Your task to perform on an android device: turn on data saver in the chrome app Image 0: 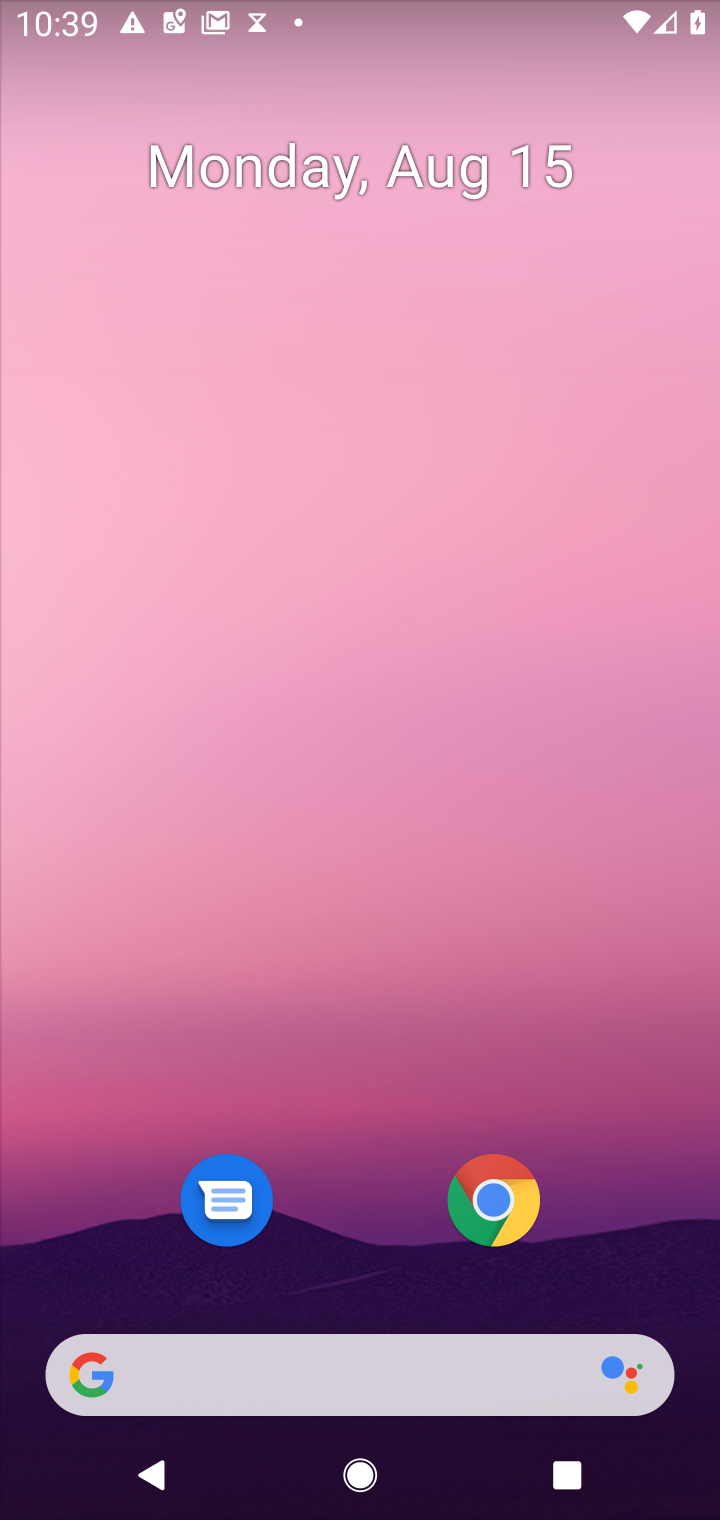
Step 0: drag from (379, 1238) to (364, 147)
Your task to perform on an android device: turn on data saver in the chrome app Image 1: 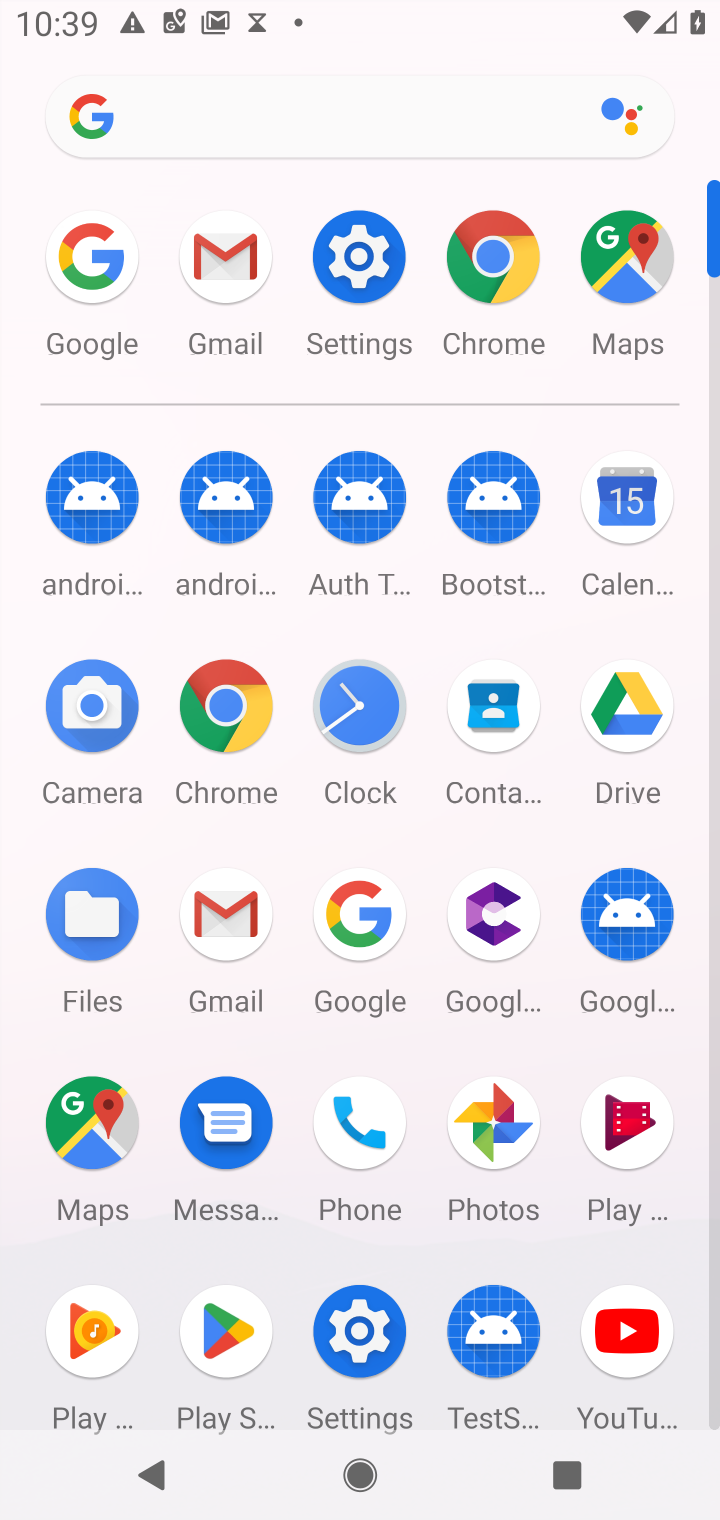
Step 1: click (486, 285)
Your task to perform on an android device: turn on data saver in the chrome app Image 2: 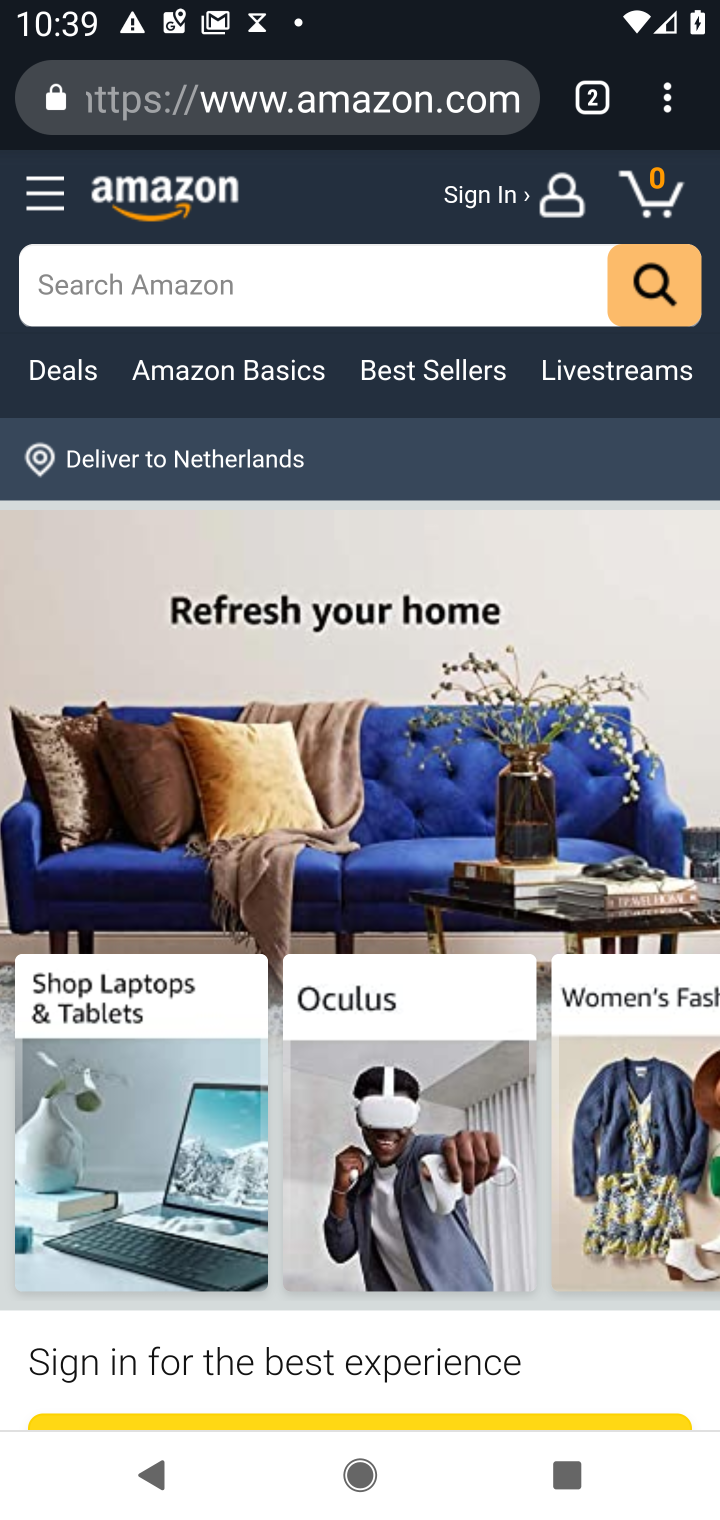
Step 2: click (657, 90)
Your task to perform on an android device: turn on data saver in the chrome app Image 3: 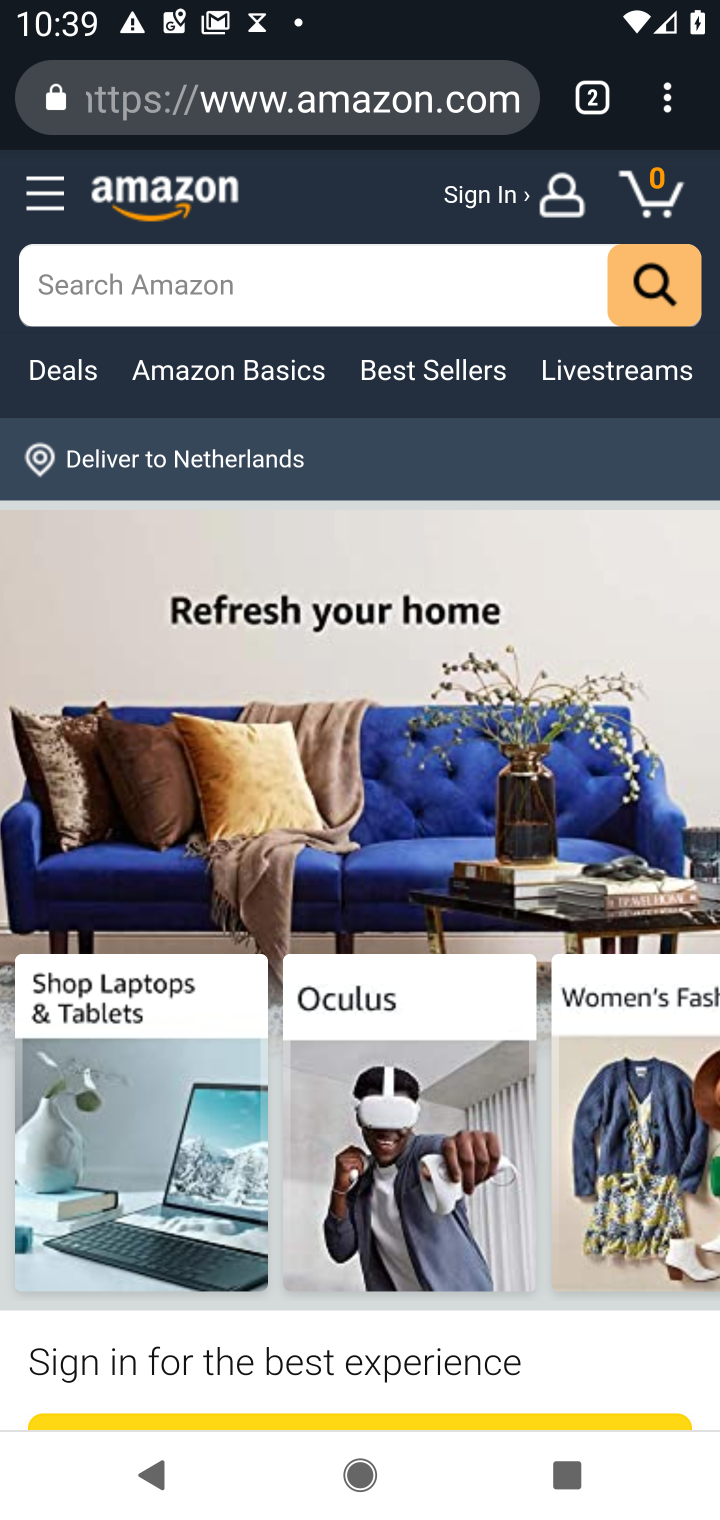
Step 3: click (675, 98)
Your task to perform on an android device: turn on data saver in the chrome app Image 4: 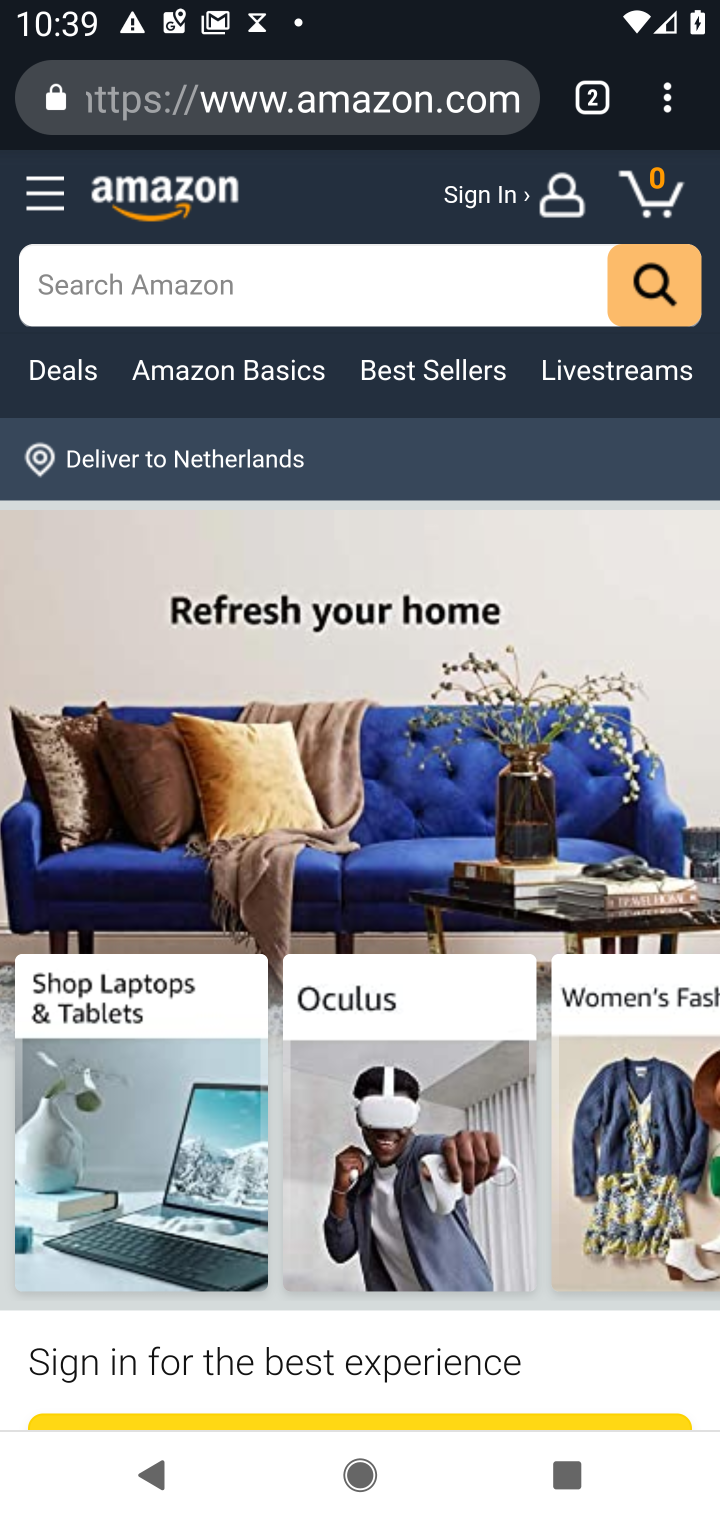
Step 4: drag from (665, 104) to (361, 1157)
Your task to perform on an android device: turn on data saver in the chrome app Image 5: 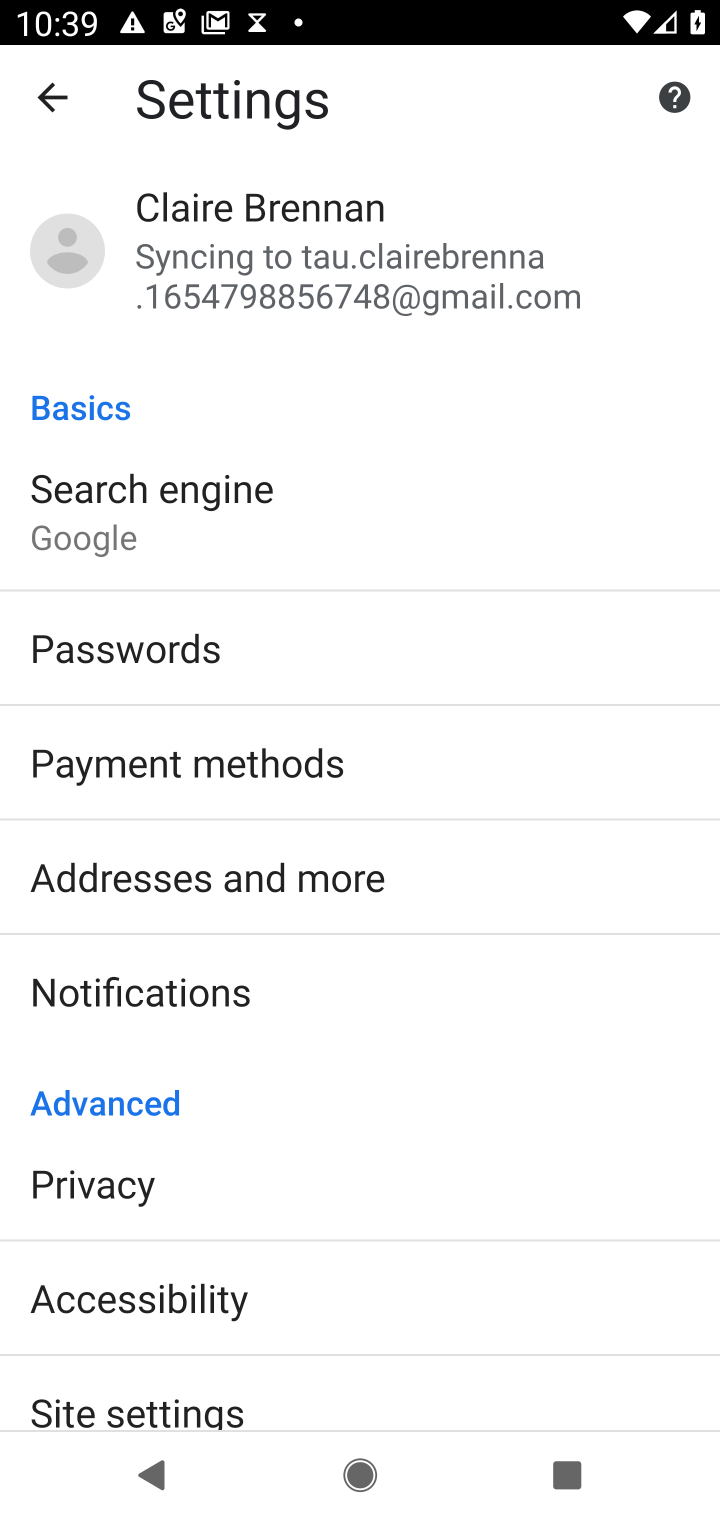
Step 5: drag from (296, 1244) to (301, 327)
Your task to perform on an android device: turn on data saver in the chrome app Image 6: 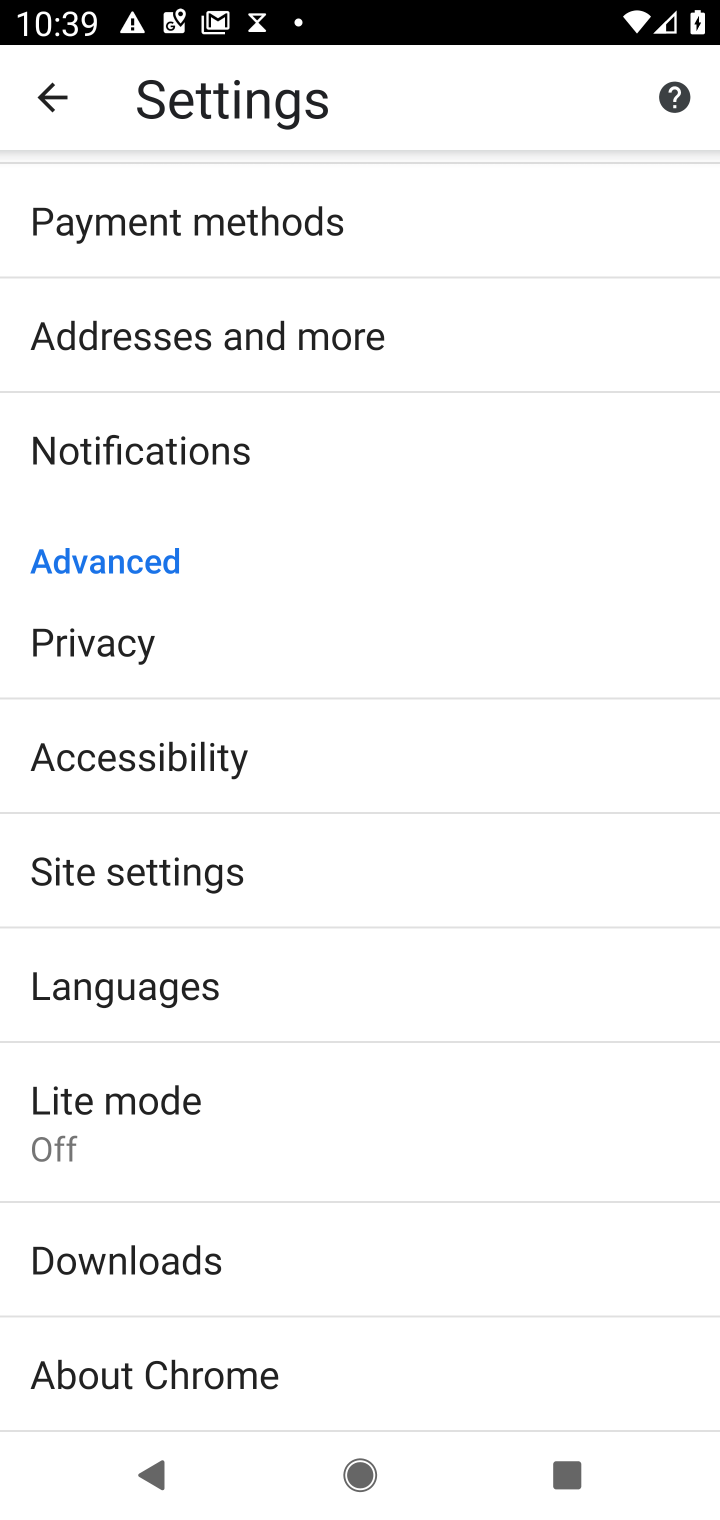
Step 6: click (202, 1133)
Your task to perform on an android device: turn on data saver in the chrome app Image 7: 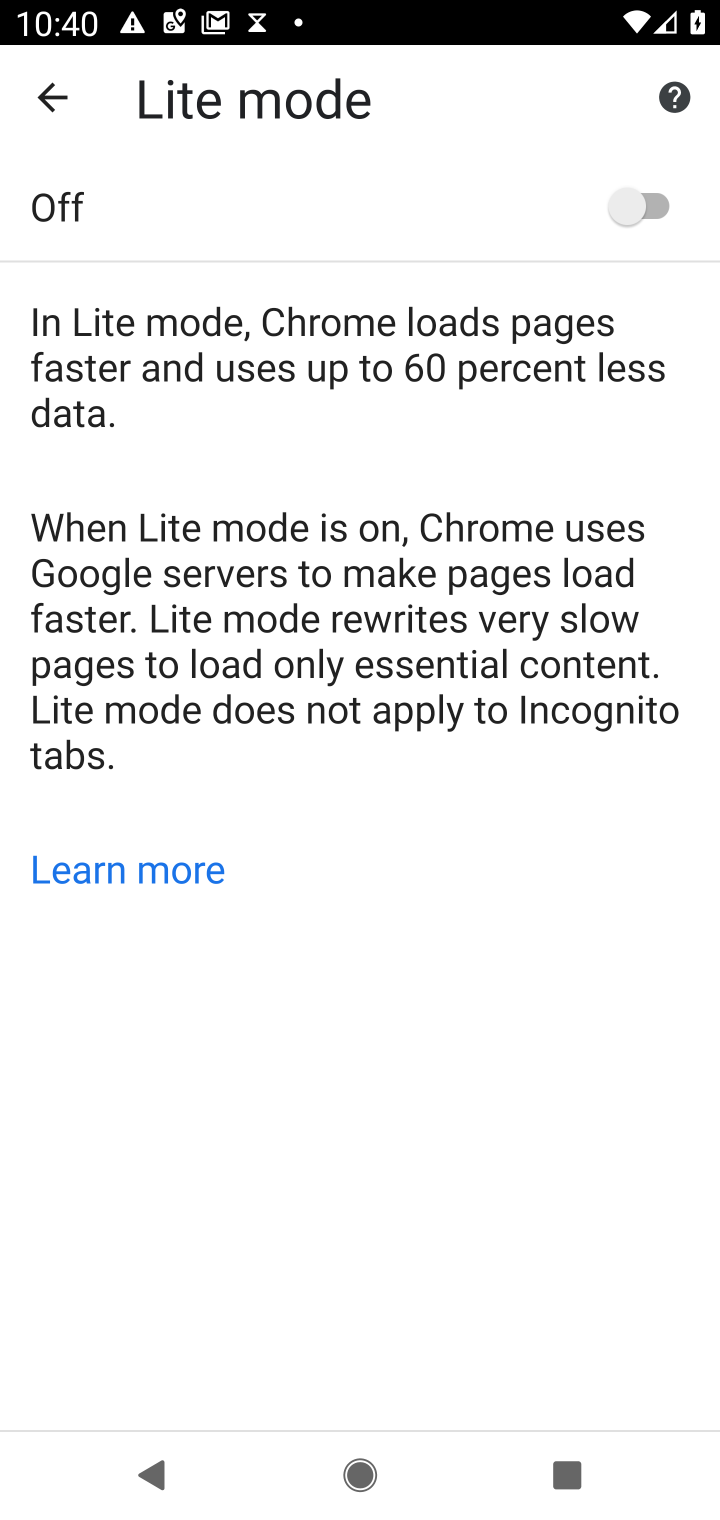
Step 7: click (649, 210)
Your task to perform on an android device: turn on data saver in the chrome app Image 8: 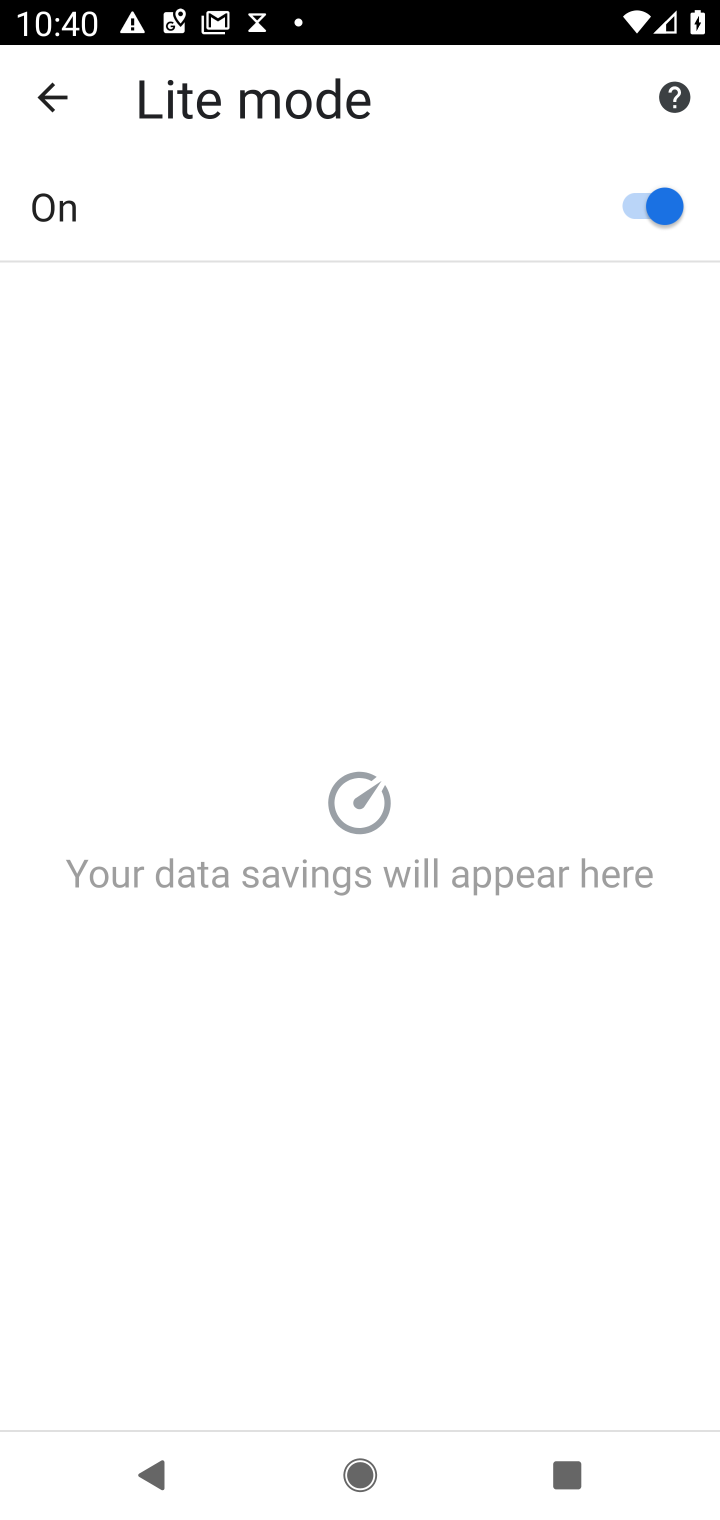
Step 8: task complete